Your task to perform on an android device: Open settings Image 0: 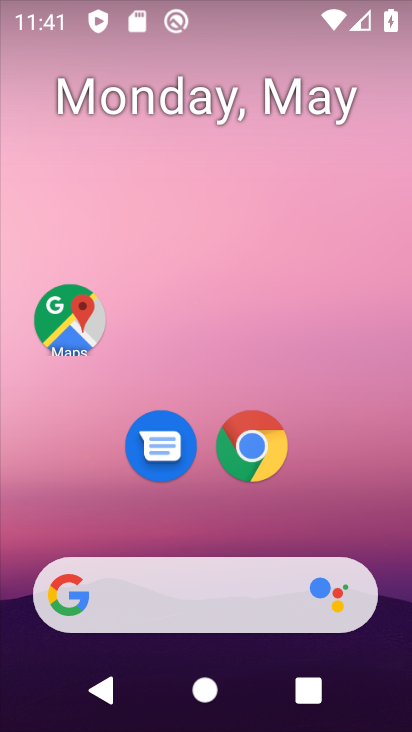
Step 0: drag from (130, 544) to (300, 28)
Your task to perform on an android device: Open settings Image 1: 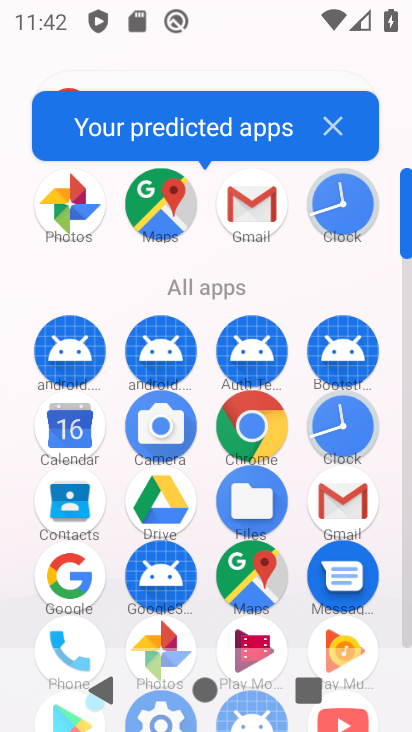
Step 1: drag from (170, 600) to (290, 336)
Your task to perform on an android device: Open settings Image 2: 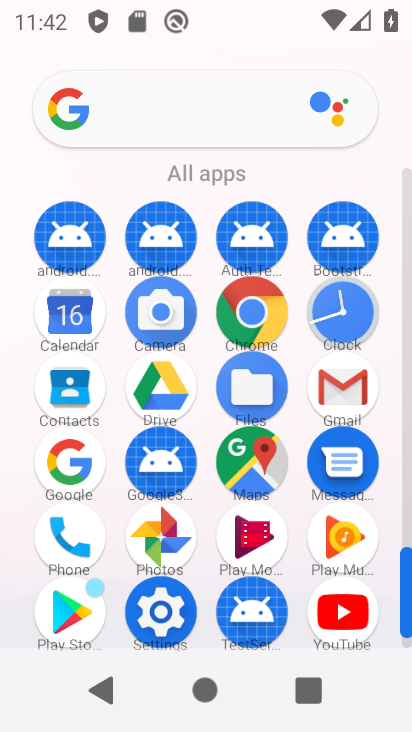
Step 2: click (177, 617)
Your task to perform on an android device: Open settings Image 3: 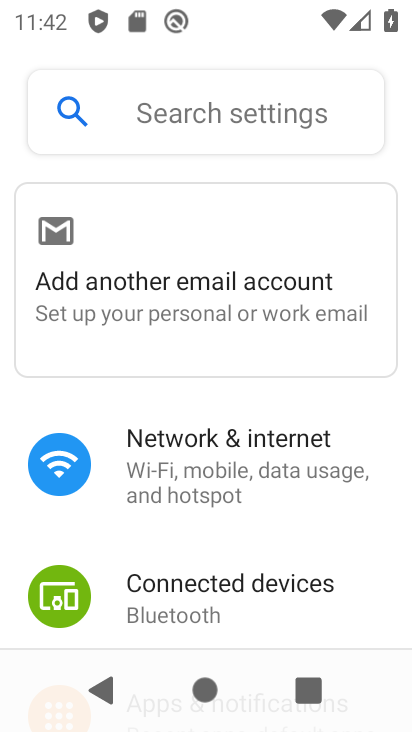
Step 3: task complete